Your task to perform on an android device: install app "Calculator" Image 0: 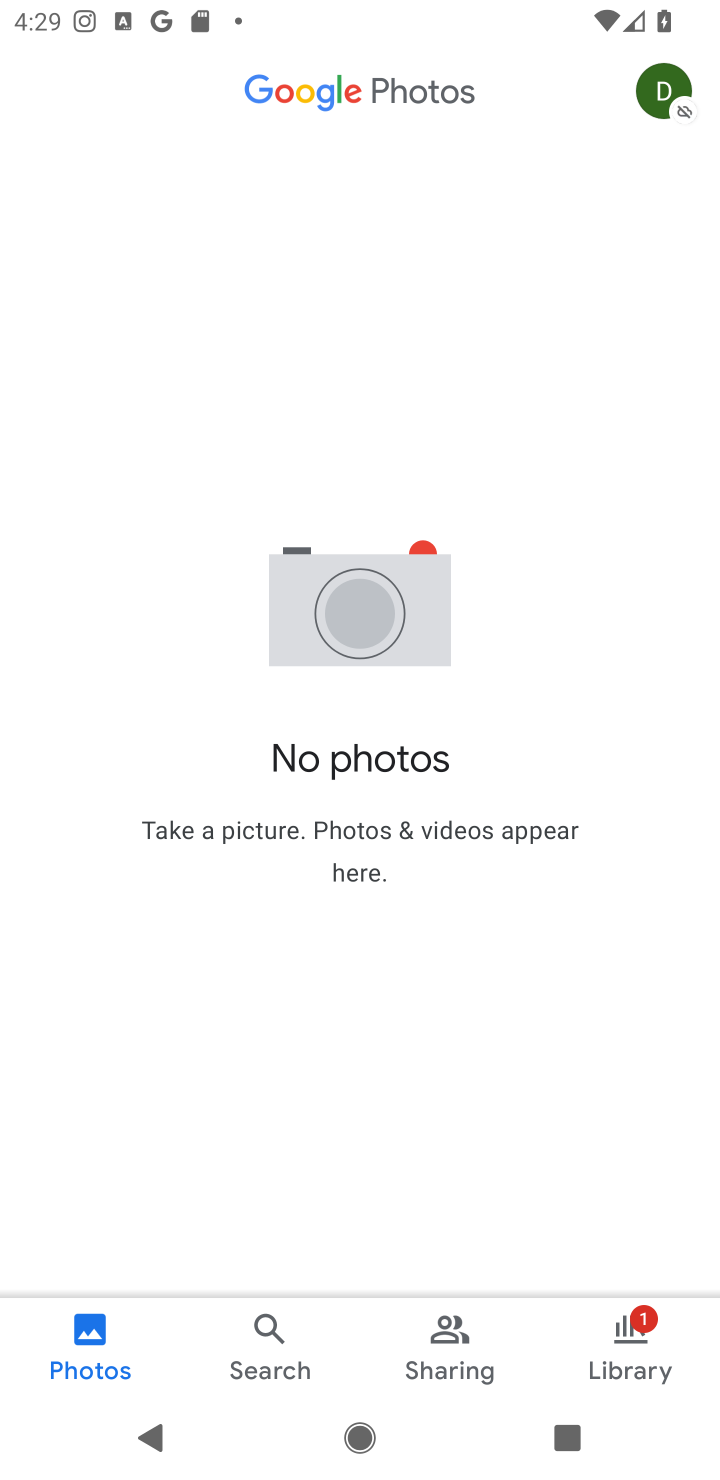
Step 0: press home button
Your task to perform on an android device: install app "Calculator" Image 1: 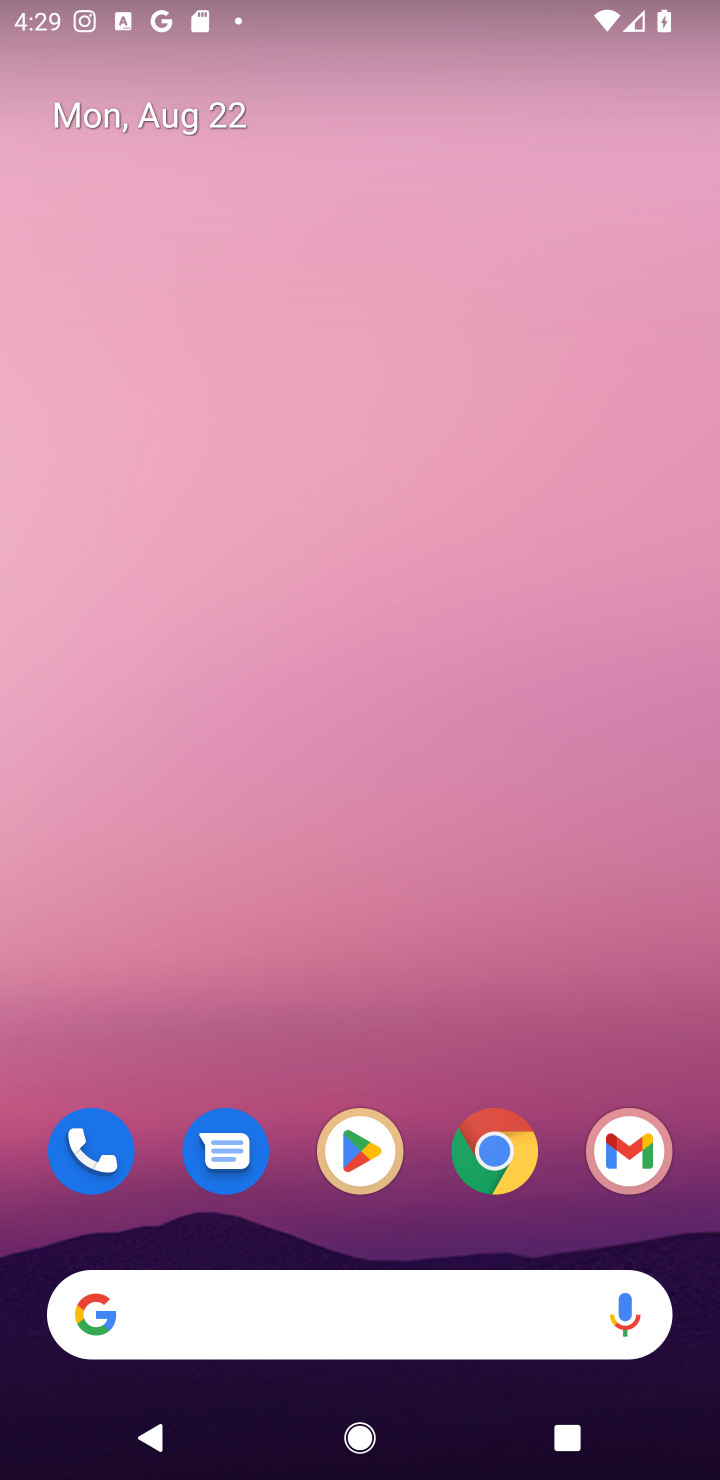
Step 1: click (355, 1141)
Your task to perform on an android device: install app "Calculator" Image 2: 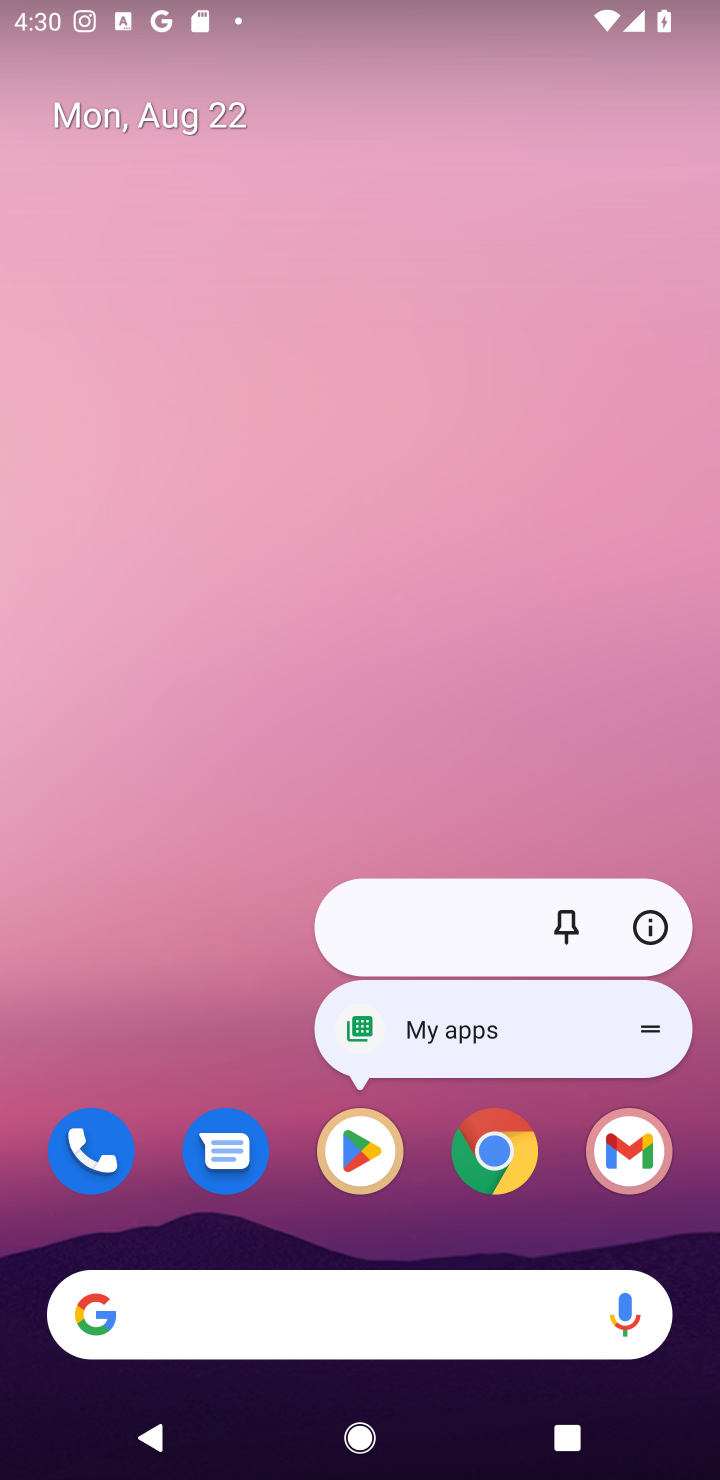
Step 2: click (358, 1164)
Your task to perform on an android device: install app "Calculator" Image 3: 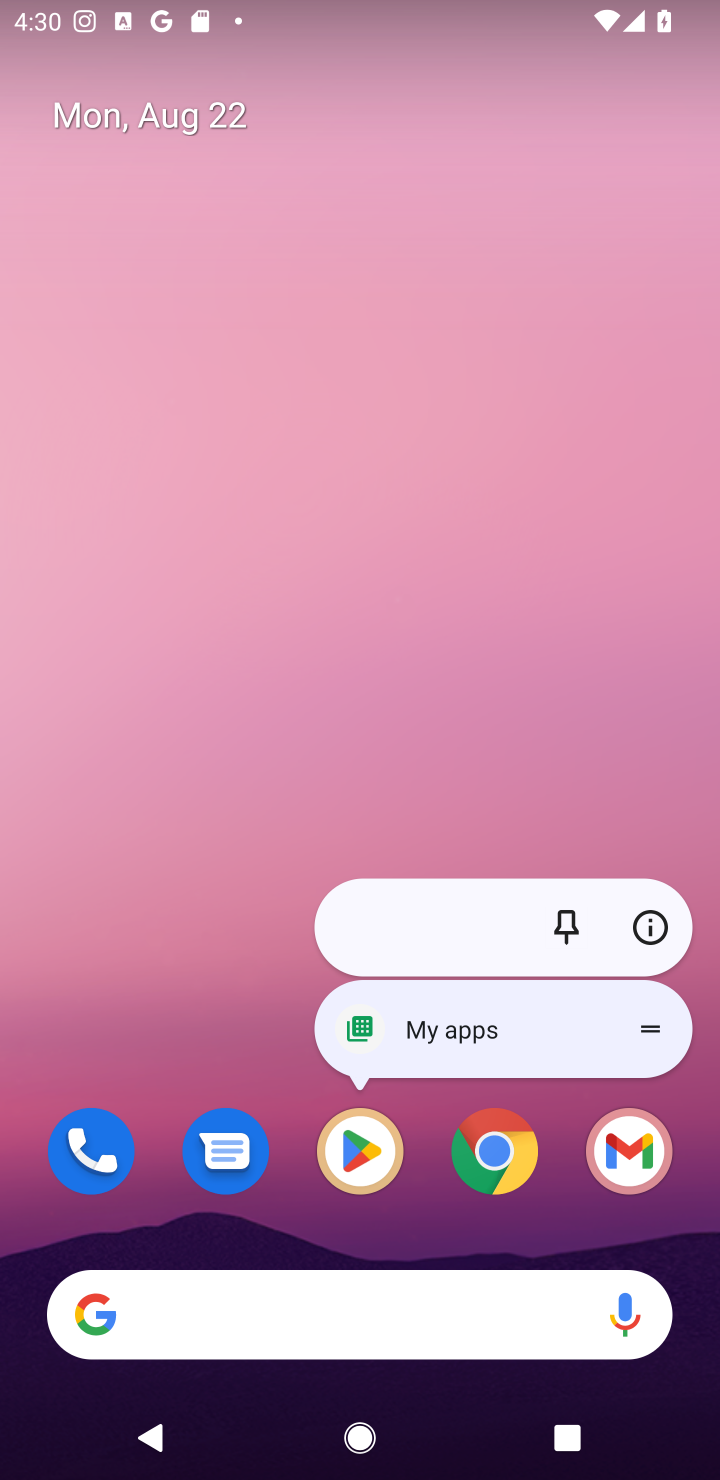
Step 3: click (358, 1169)
Your task to perform on an android device: install app "Calculator" Image 4: 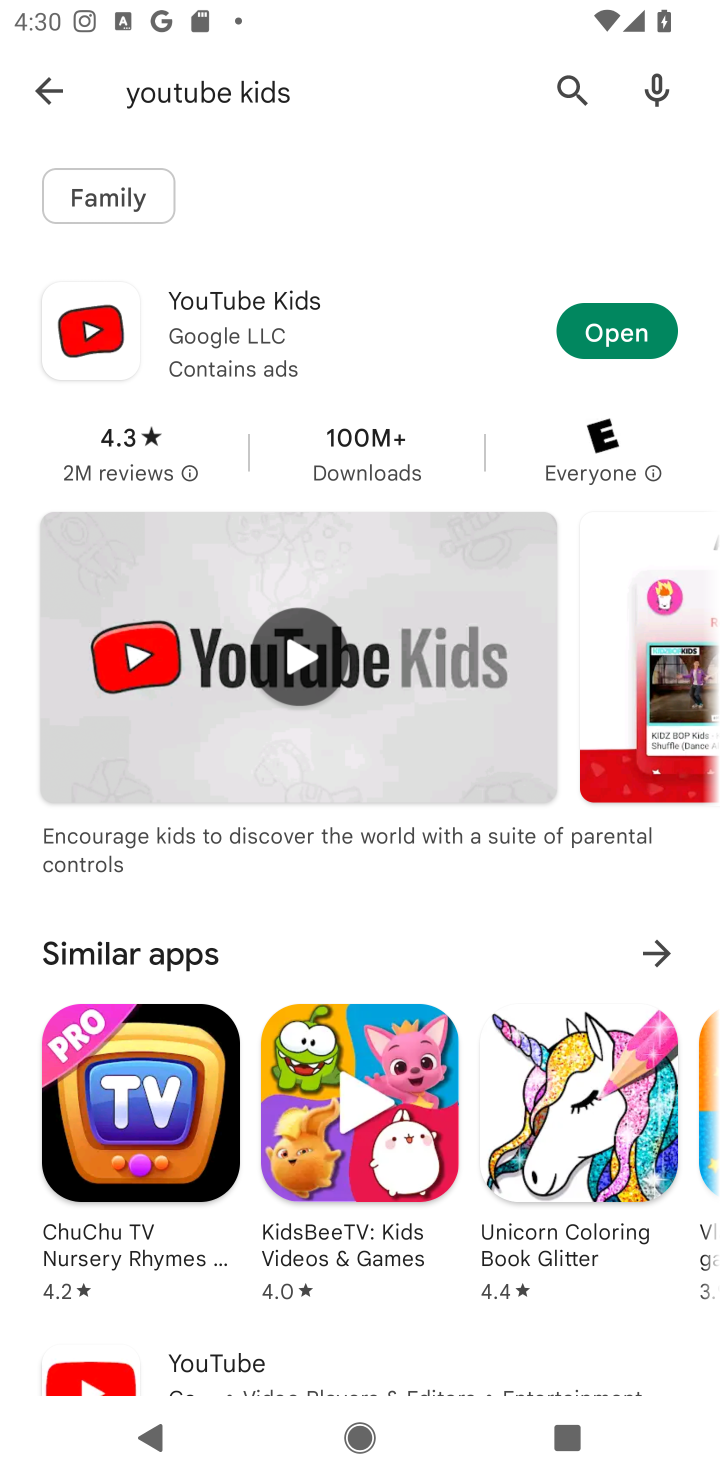
Step 4: click (568, 75)
Your task to perform on an android device: install app "Calculator" Image 5: 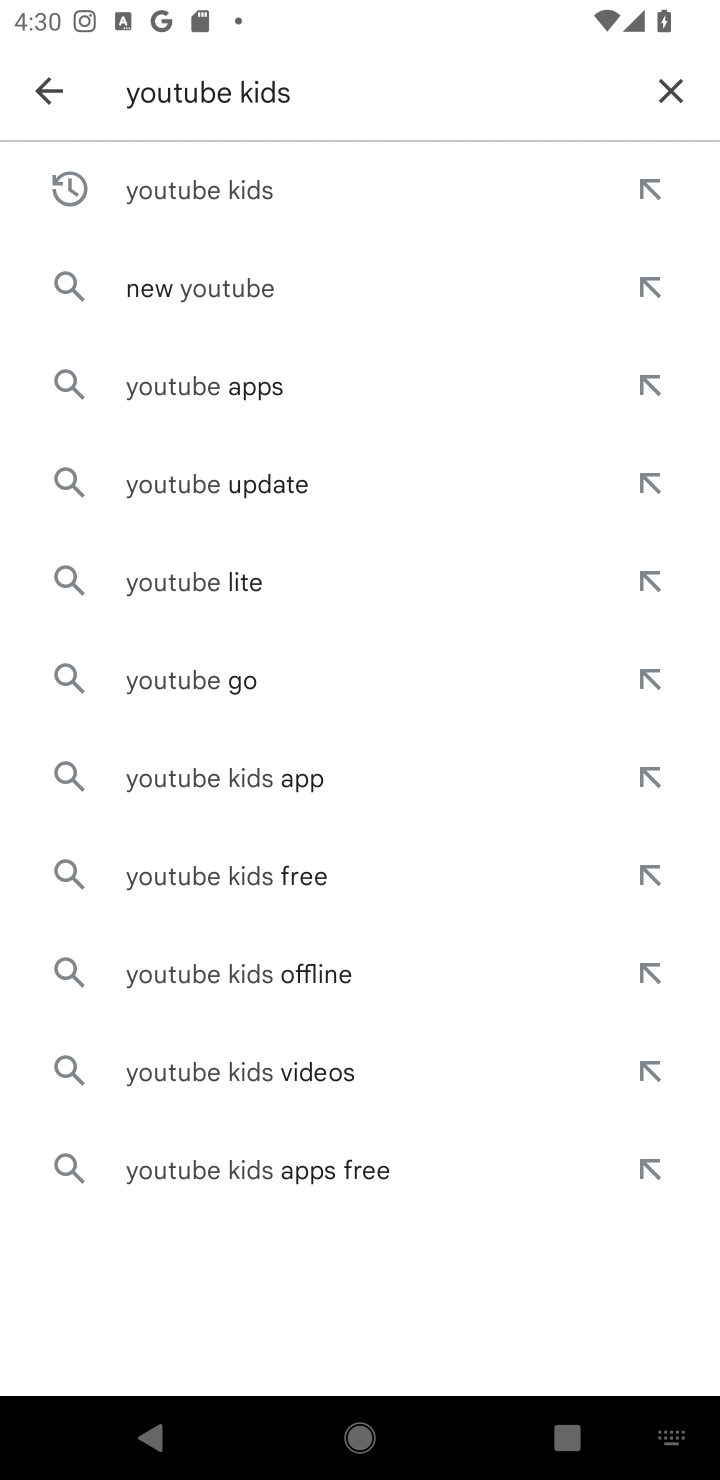
Step 5: click (657, 79)
Your task to perform on an android device: install app "Calculator" Image 6: 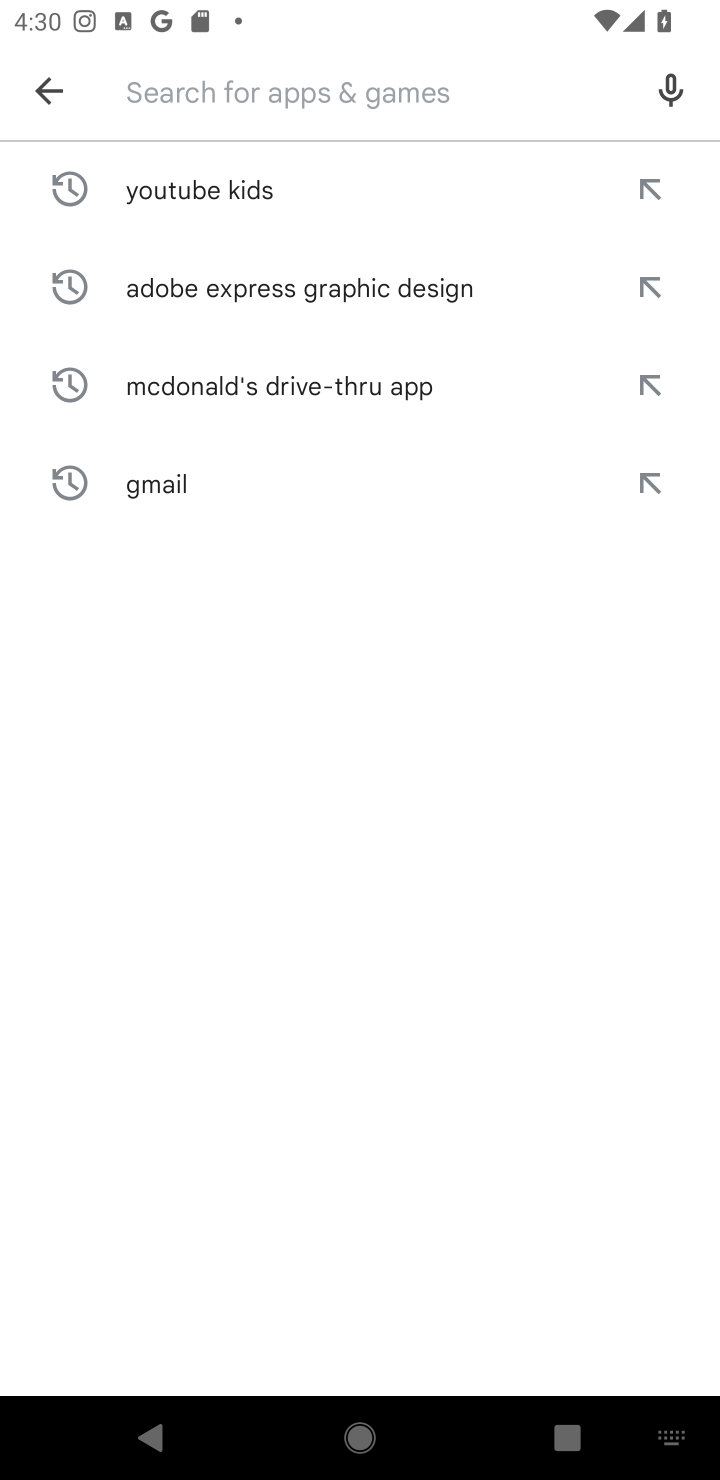
Step 6: type "Calculator"
Your task to perform on an android device: install app "Calculator" Image 7: 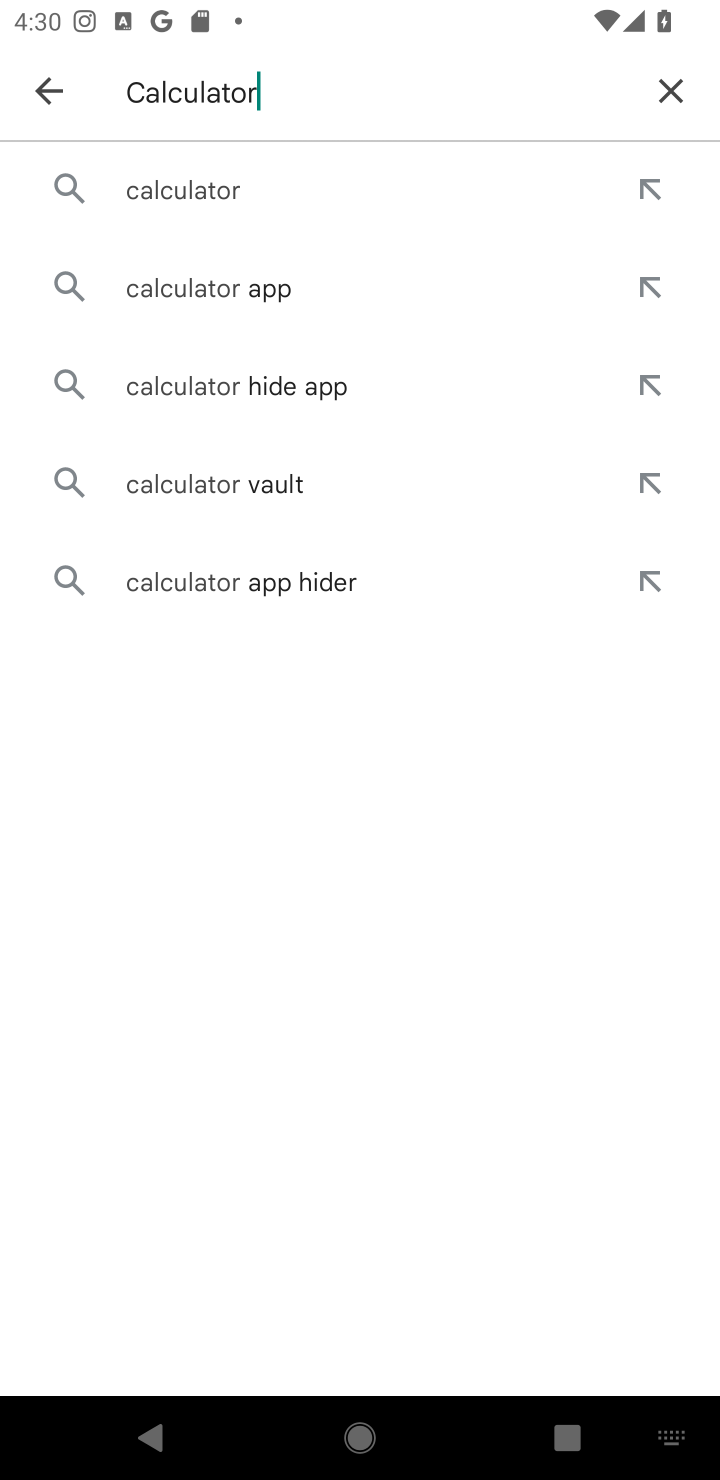
Step 7: click (196, 171)
Your task to perform on an android device: install app "Calculator" Image 8: 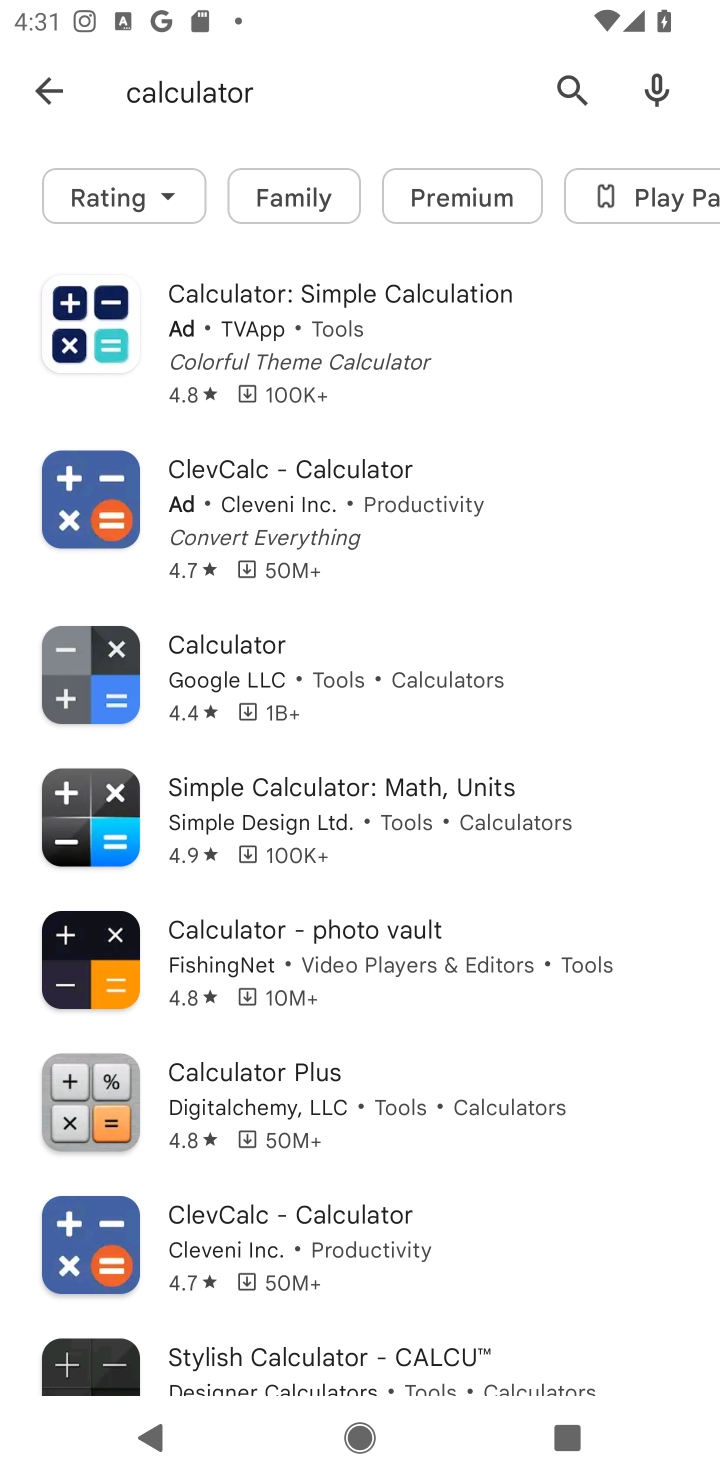
Step 8: click (305, 716)
Your task to perform on an android device: install app "Calculator" Image 9: 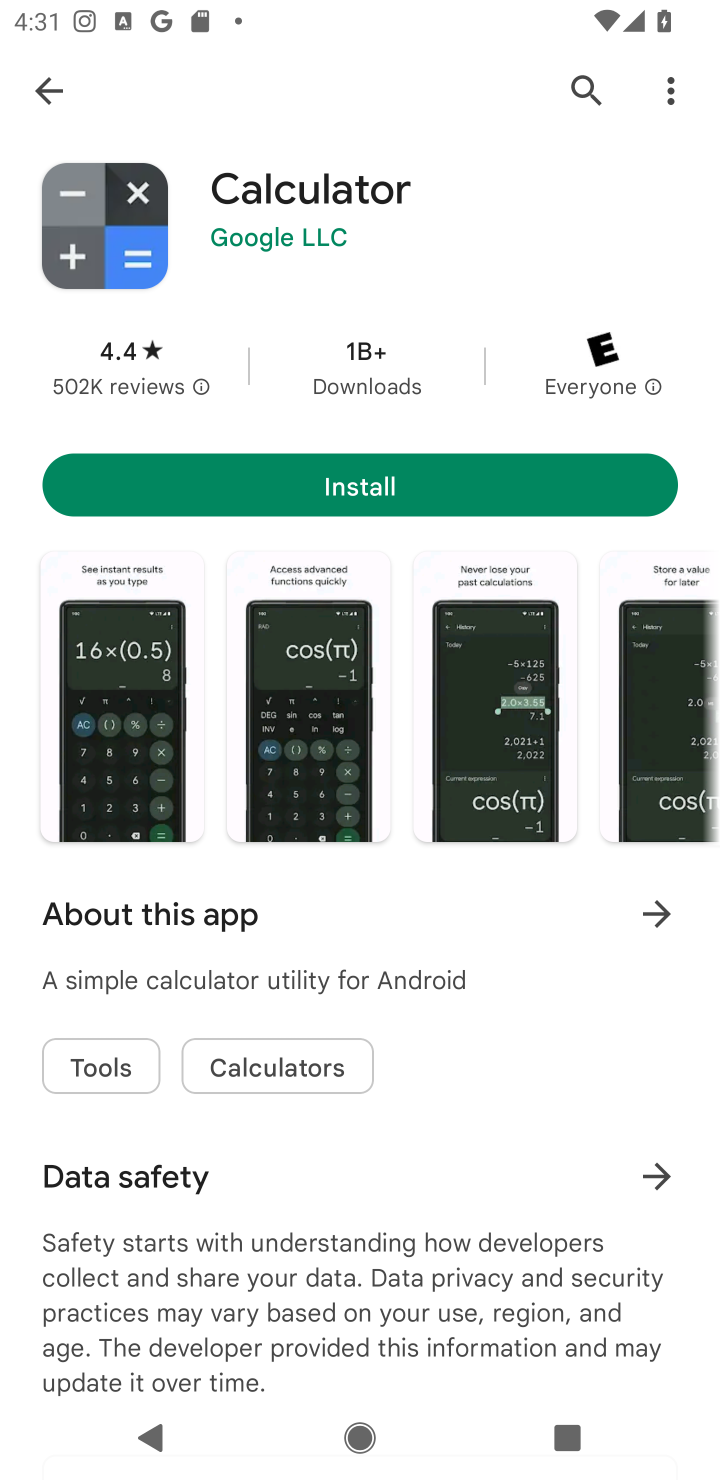
Step 9: click (442, 477)
Your task to perform on an android device: install app "Calculator" Image 10: 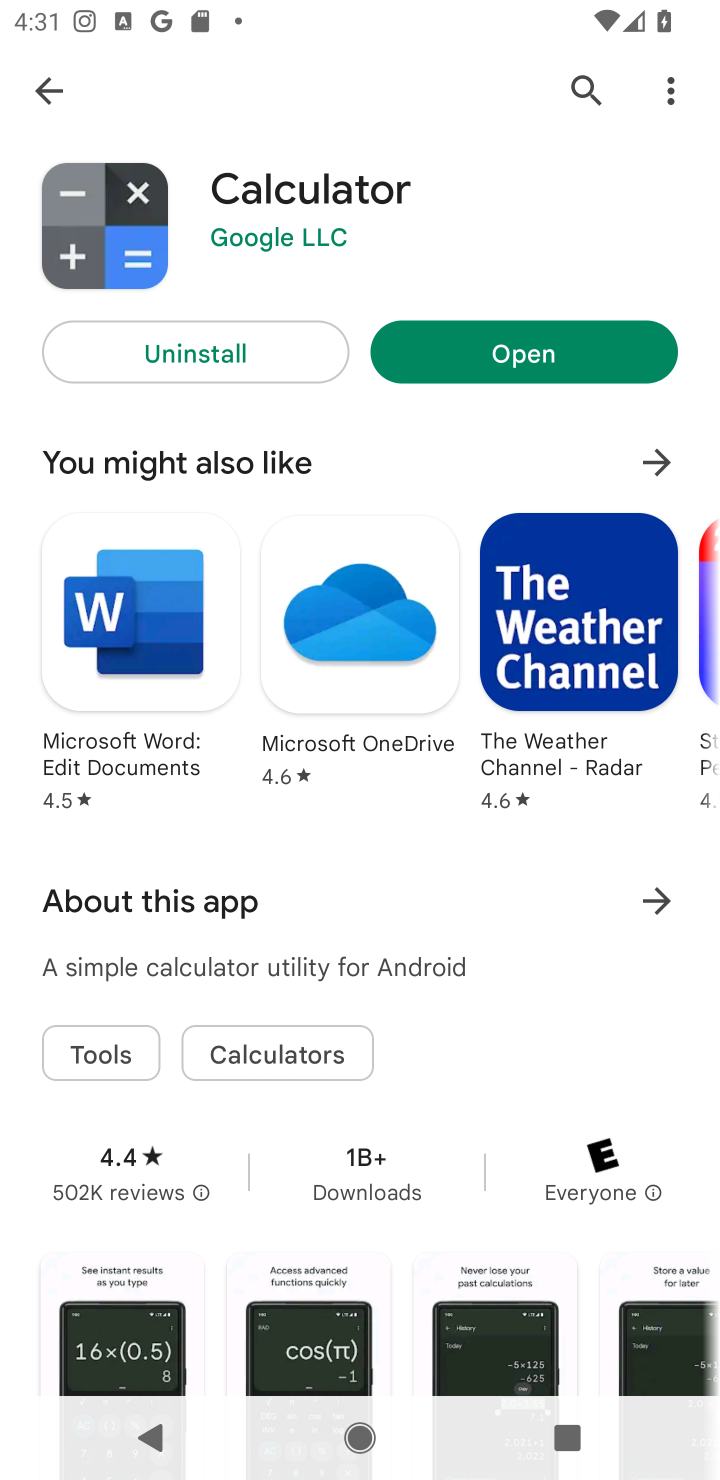
Step 10: task complete